Your task to perform on an android device: check google app version Image 0: 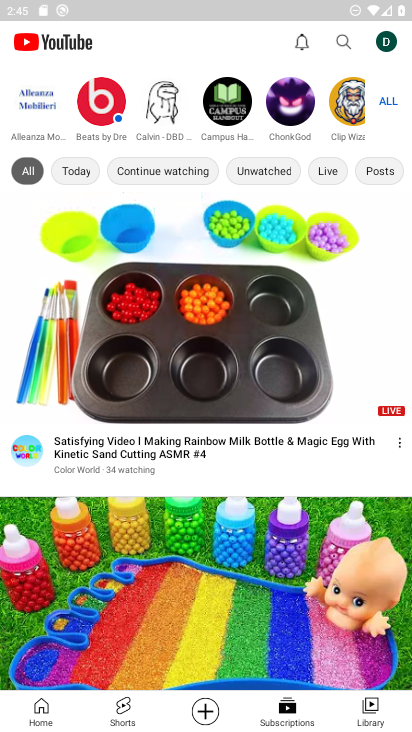
Step 0: press home button
Your task to perform on an android device: check google app version Image 1: 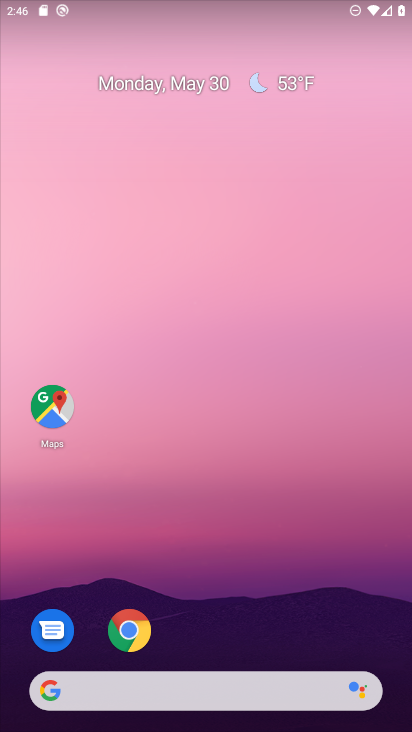
Step 1: drag from (184, 685) to (269, 32)
Your task to perform on an android device: check google app version Image 2: 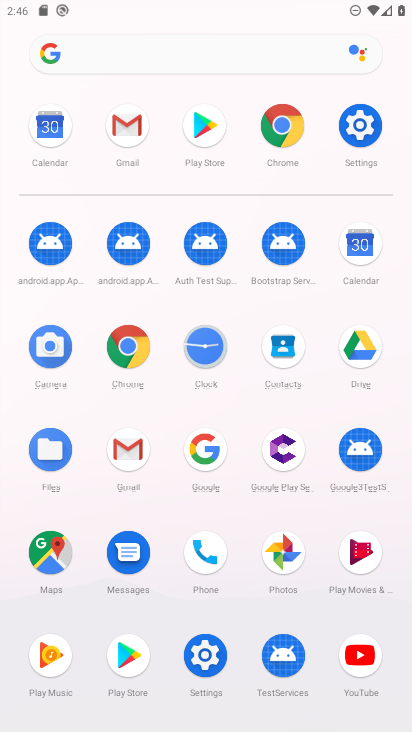
Step 2: click (215, 439)
Your task to perform on an android device: check google app version Image 3: 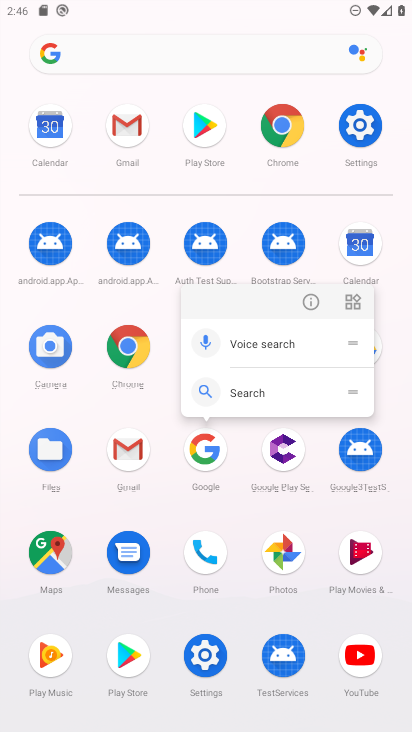
Step 3: click (310, 298)
Your task to perform on an android device: check google app version Image 4: 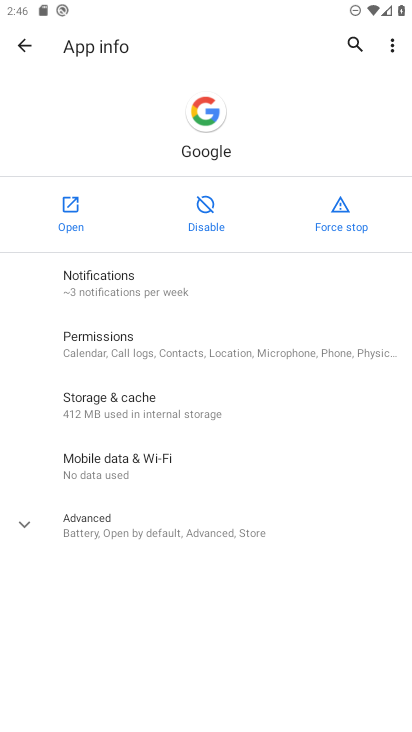
Step 4: click (105, 537)
Your task to perform on an android device: check google app version Image 5: 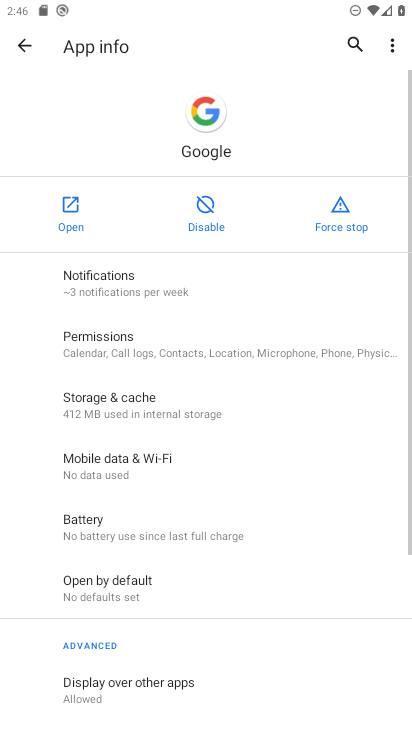
Step 5: task complete